Your task to perform on an android device: Open battery settings Image 0: 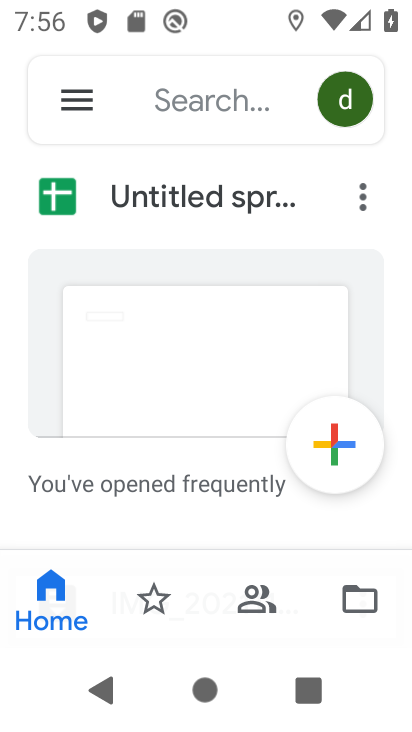
Step 0: press back button
Your task to perform on an android device: Open battery settings Image 1: 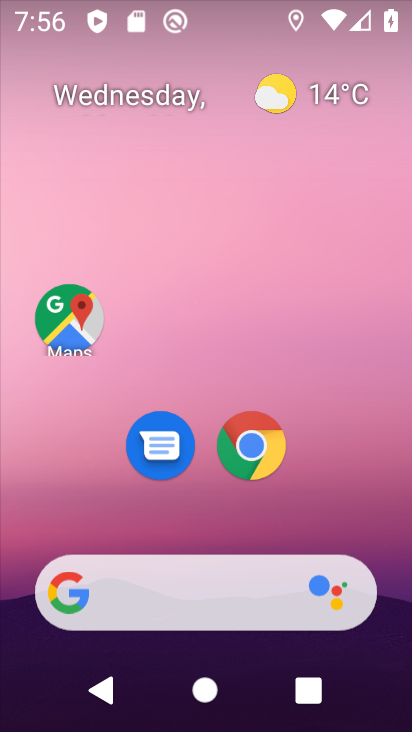
Step 1: drag from (270, 621) to (246, 195)
Your task to perform on an android device: Open battery settings Image 2: 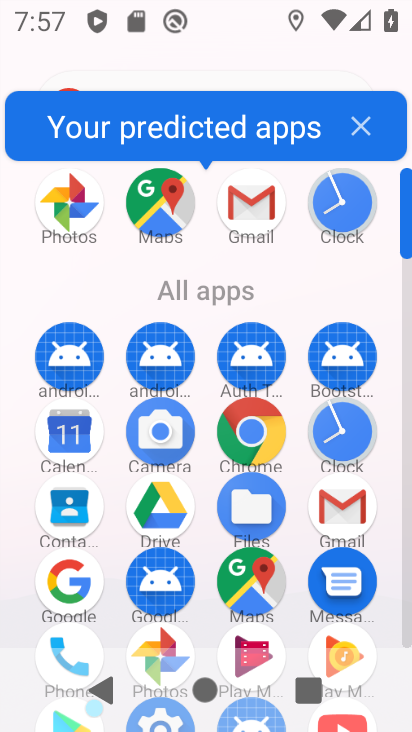
Step 2: drag from (258, 509) to (295, 198)
Your task to perform on an android device: Open battery settings Image 3: 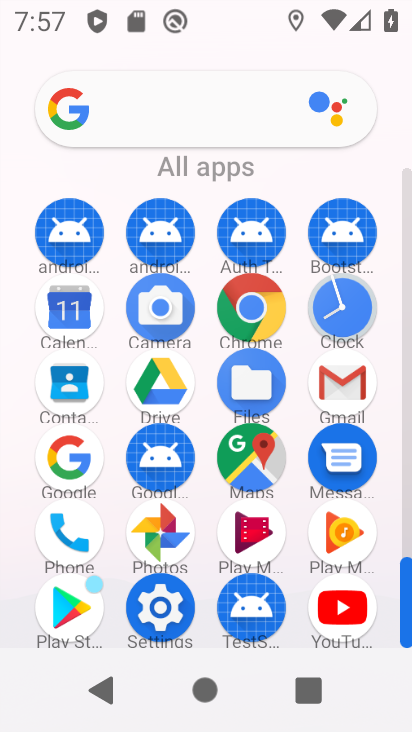
Step 3: click (156, 614)
Your task to perform on an android device: Open battery settings Image 4: 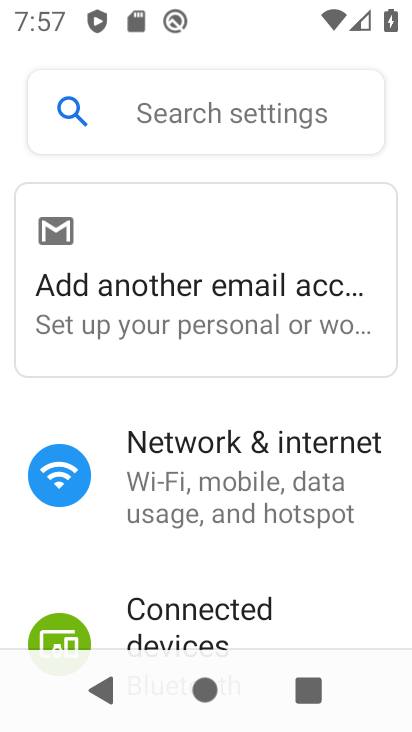
Step 4: drag from (308, 537) to (358, 218)
Your task to perform on an android device: Open battery settings Image 5: 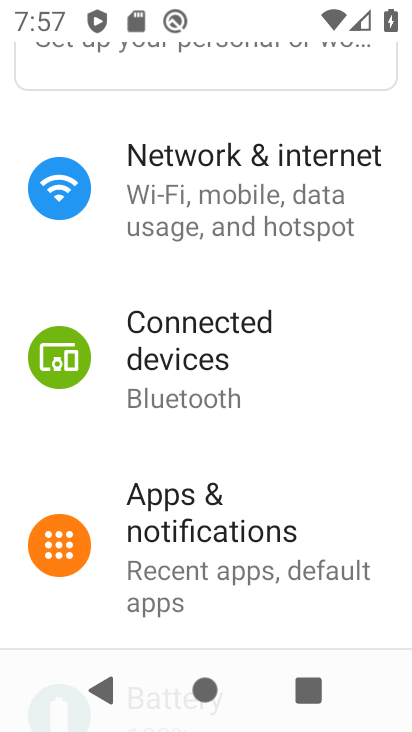
Step 5: drag from (316, 500) to (345, 154)
Your task to perform on an android device: Open battery settings Image 6: 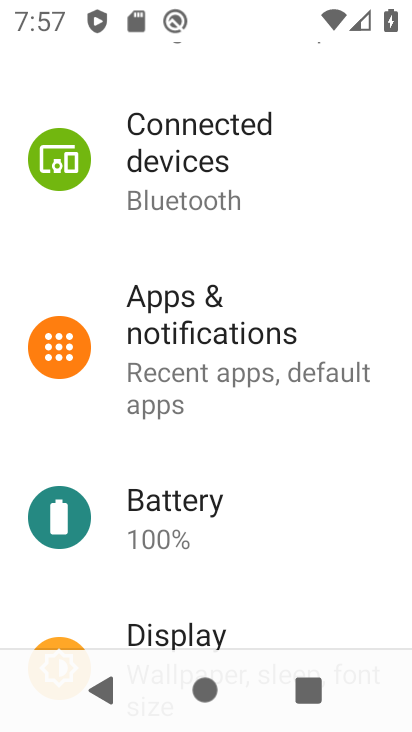
Step 6: click (249, 503)
Your task to perform on an android device: Open battery settings Image 7: 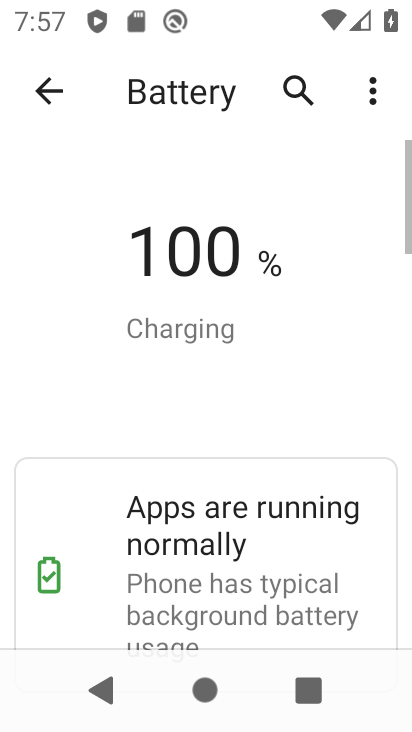
Step 7: task complete